Your task to perform on an android device: Search for vegetarian restaurants on Maps Image 0: 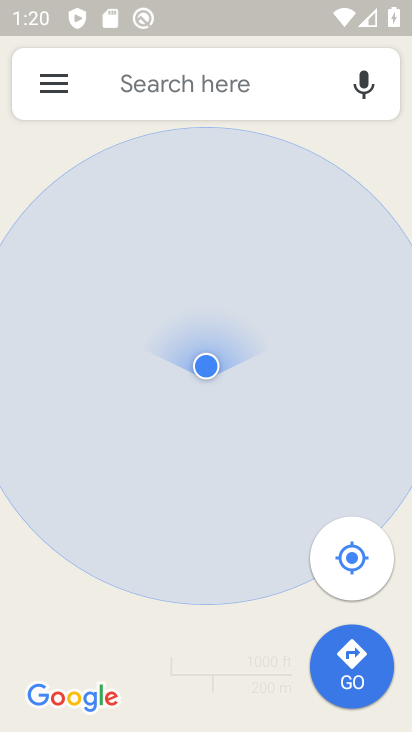
Step 0: click (157, 105)
Your task to perform on an android device: Search for vegetarian restaurants on Maps Image 1: 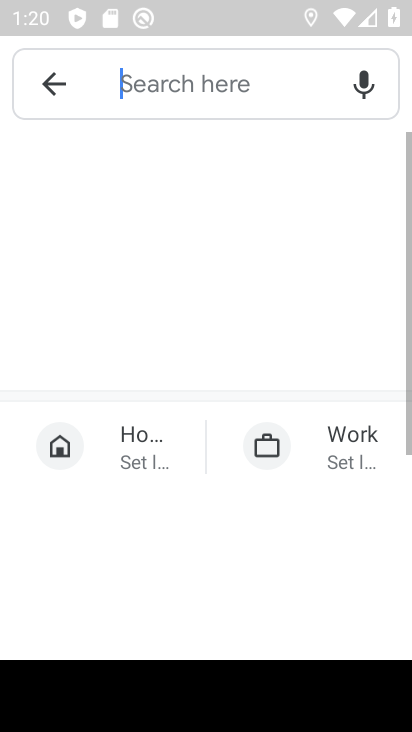
Step 1: type "veg"
Your task to perform on an android device: Search for vegetarian restaurants on Maps Image 2: 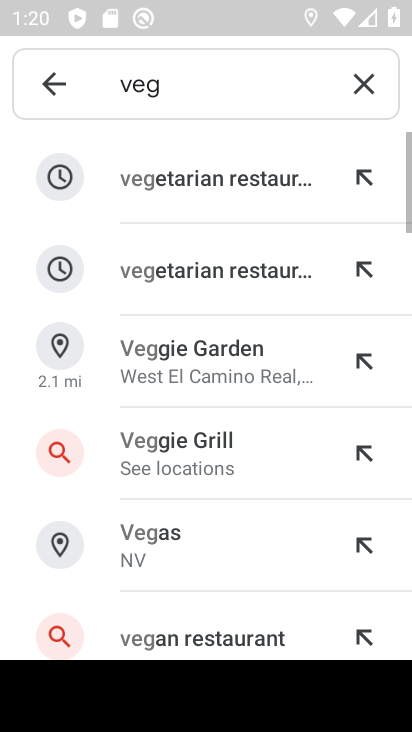
Step 2: click (196, 152)
Your task to perform on an android device: Search for vegetarian restaurants on Maps Image 3: 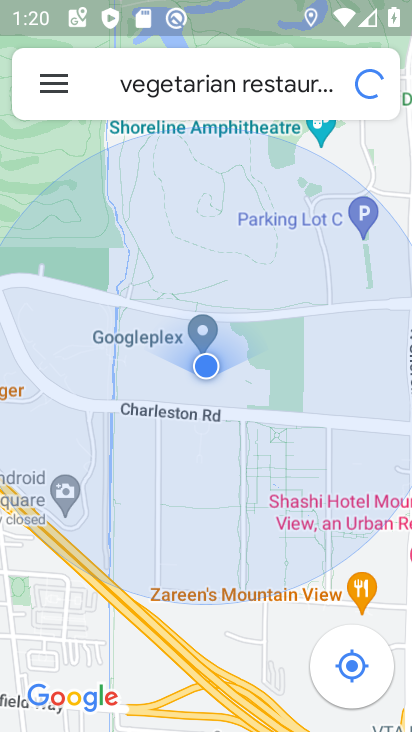
Step 3: task complete